Your task to perform on an android device: change your default location settings in chrome Image 0: 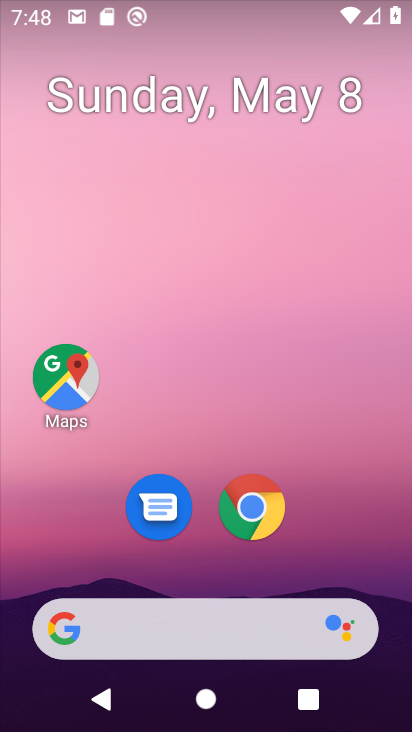
Step 0: click (252, 519)
Your task to perform on an android device: change your default location settings in chrome Image 1: 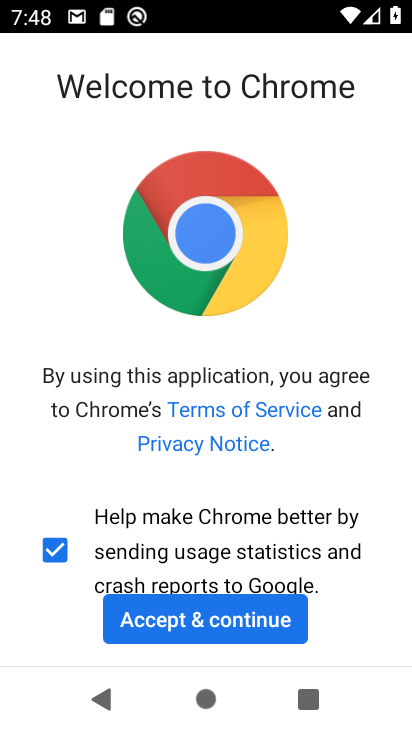
Step 1: click (199, 607)
Your task to perform on an android device: change your default location settings in chrome Image 2: 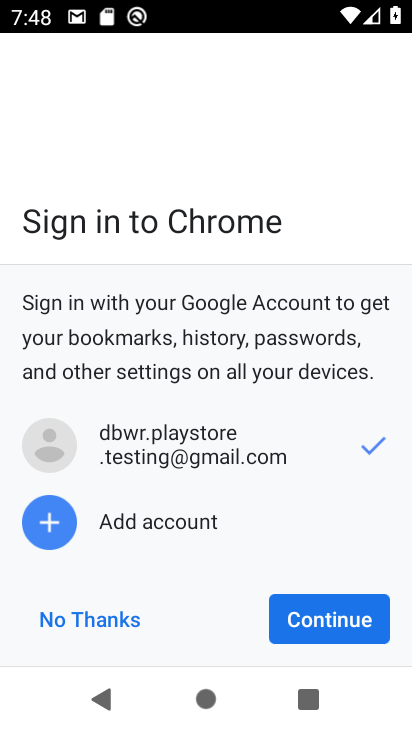
Step 2: click (343, 634)
Your task to perform on an android device: change your default location settings in chrome Image 3: 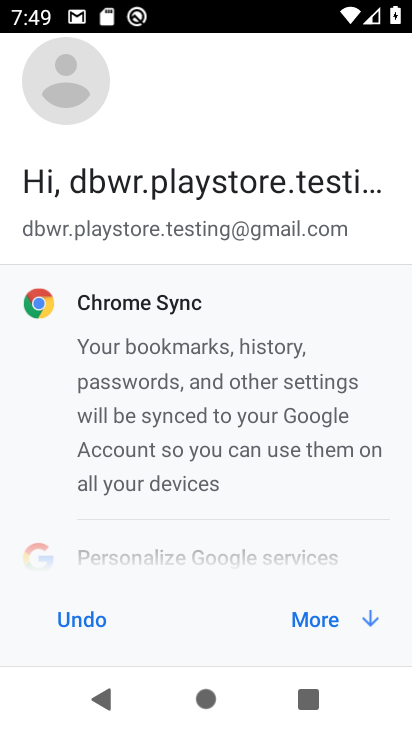
Step 3: click (331, 628)
Your task to perform on an android device: change your default location settings in chrome Image 4: 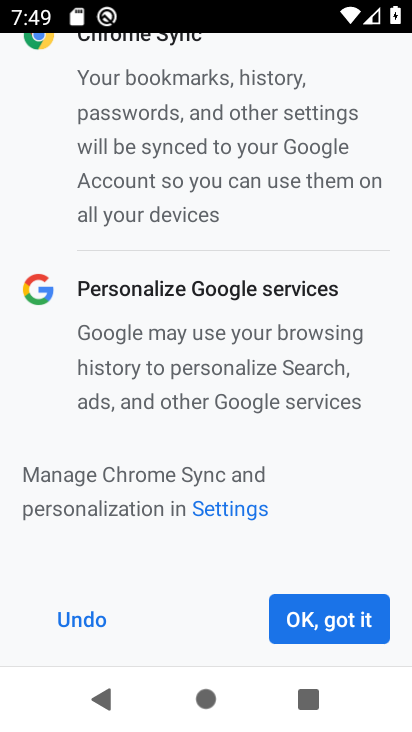
Step 4: click (331, 628)
Your task to perform on an android device: change your default location settings in chrome Image 5: 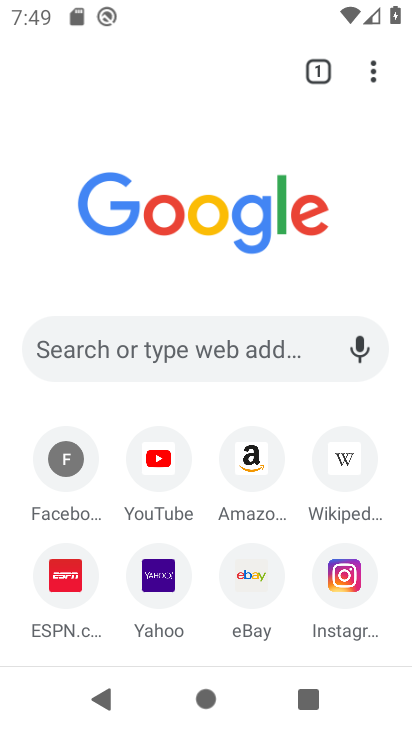
Step 5: drag from (372, 66) to (111, 488)
Your task to perform on an android device: change your default location settings in chrome Image 6: 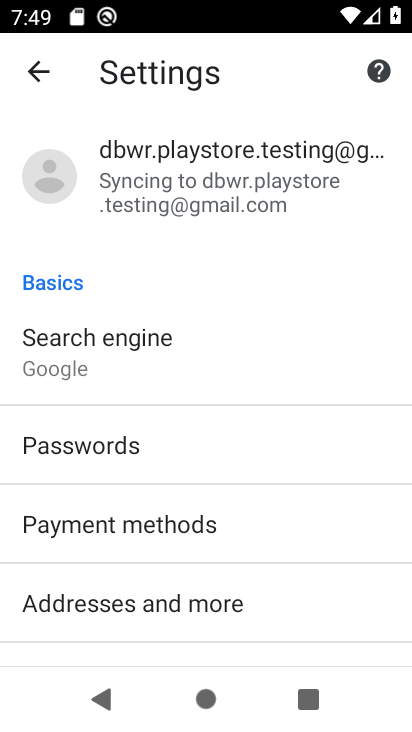
Step 6: drag from (179, 598) to (212, 192)
Your task to perform on an android device: change your default location settings in chrome Image 7: 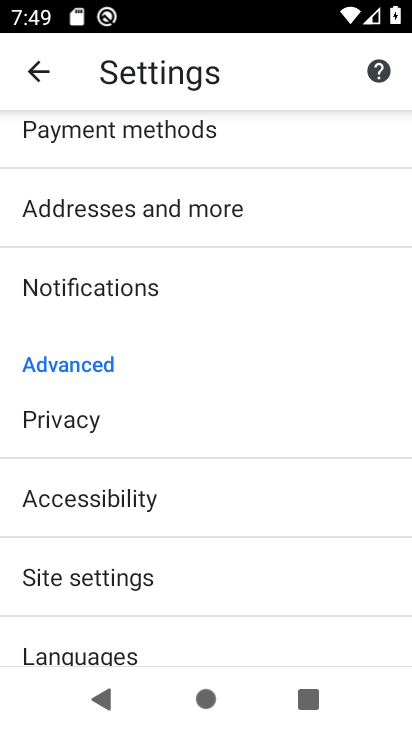
Step 7: drag from (165, 615) to (181, 417)
Your task to perform on an android device: change your default location settings in chrome Image 8: 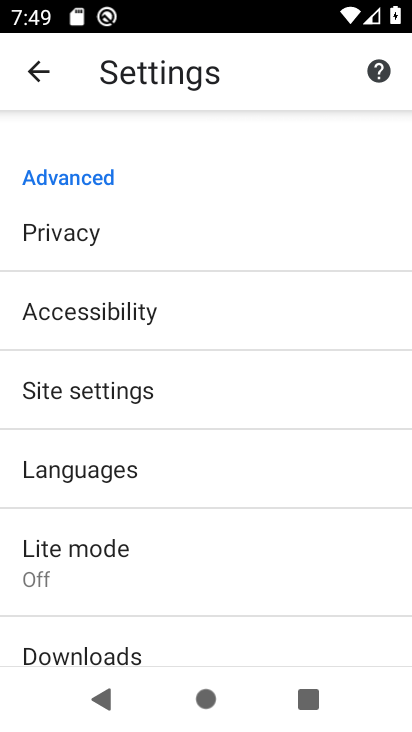
Step 8: click (128, 395)
Your task to perform on an android device: change your default location settings in chrome Image 9: 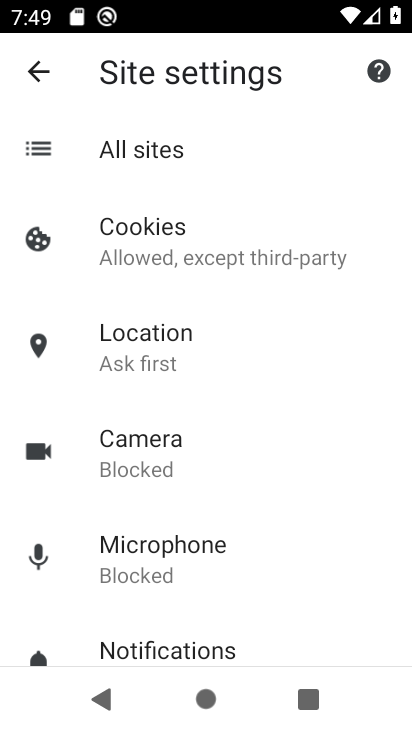
Step 9: click (202, 364)
Your task to perform on an android device: change your default location settings in chrome Image 10: 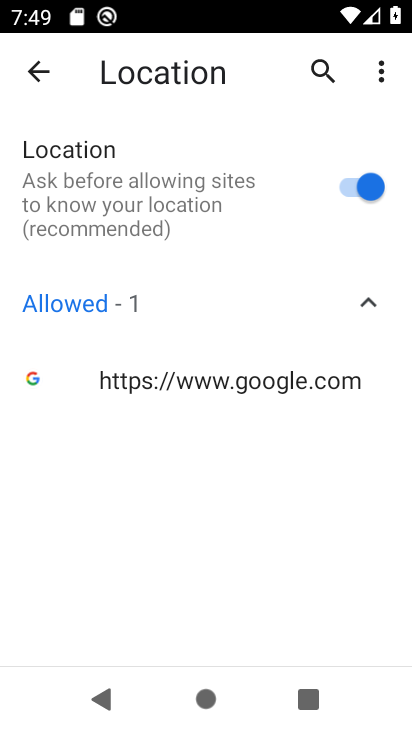
Step 10: click (351, 182)
Your task to perform on an android device: change your default location settings in chrome Image 11: 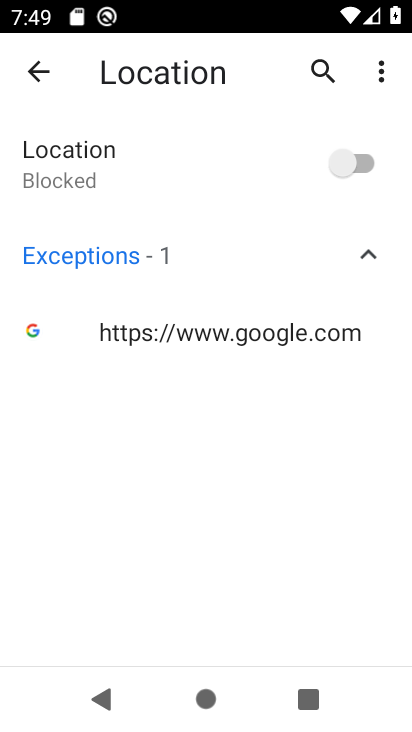
Step 11: task complete